Your task to perform on an android device: Search for Mexican restaurants on Maps Image 0: 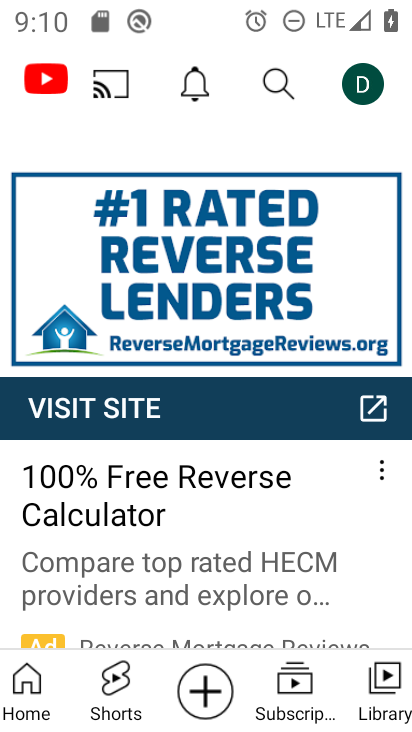
Step 0: press home button
Your task to perform on an android device: Search for Mexican restaurants on Maps Image 1: 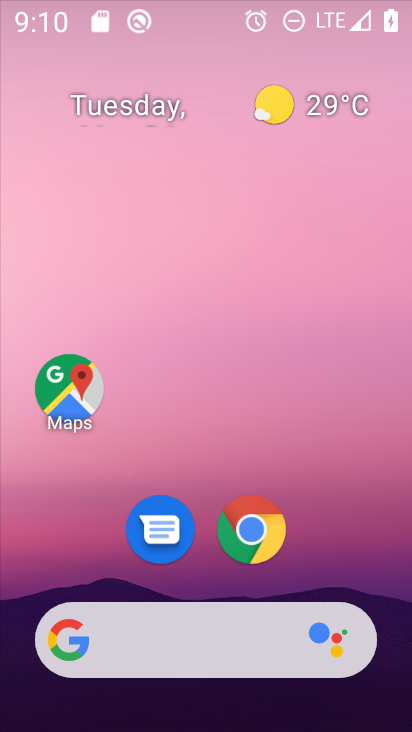
Step 1: drag from (398, 631) to (319, 18)
Your task to perform on an android device: Search for Mexican restaurants on Maps Image 2: 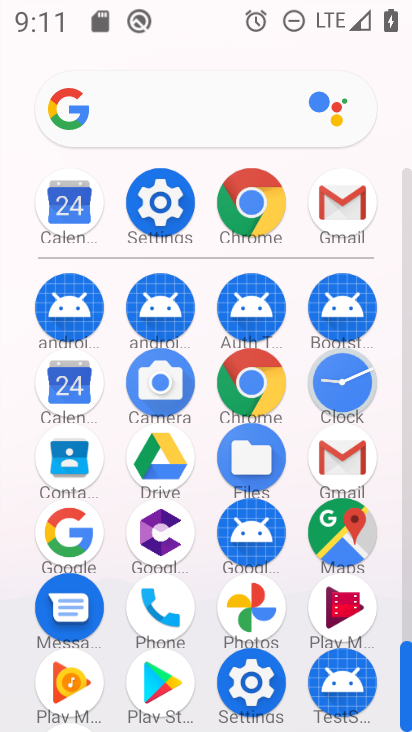
Step 2: click (376, 529)
Your task to perform on an android device: Search for Mexican restaurants on Maps Image 3: 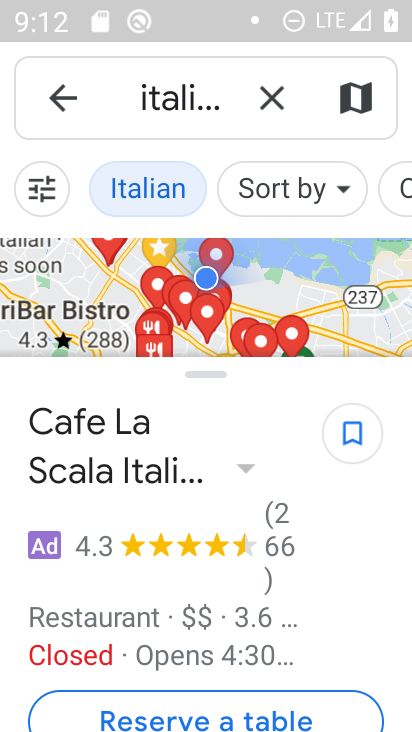
Step 3: click (266, 98)
Your task to perform on an android device: Search for Mexican restaurants on Maps Image 4: 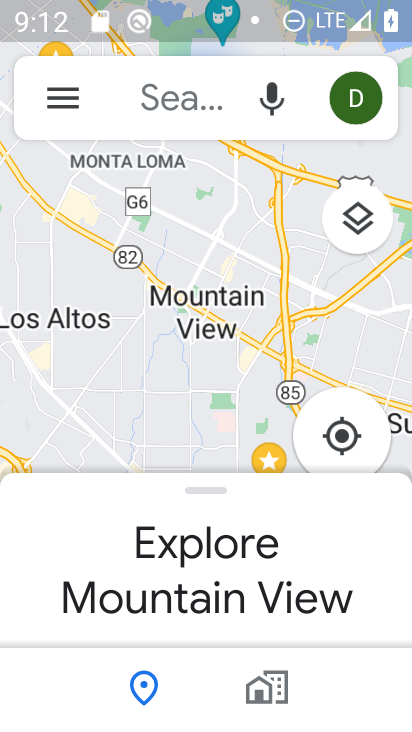
Step 4: click (172, 95)
Your task to perform on an android device: Search for Mexican restaurants on Maps Image 5: 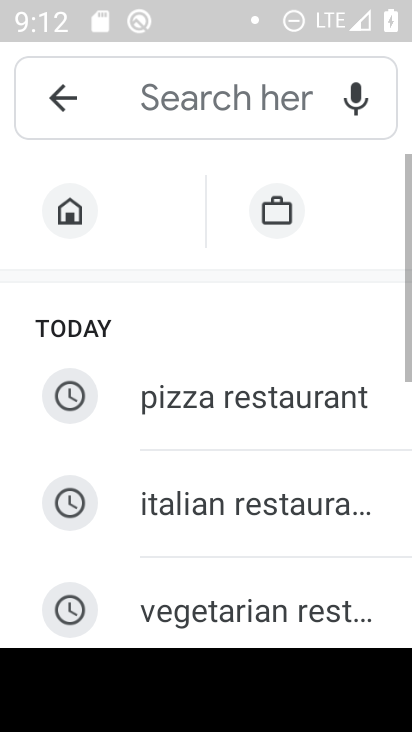
Step 5: drag from (202, 562) to (250, 143)
Your task to perform on an android device: Search for Mexican restaurants on Maps Image 6: 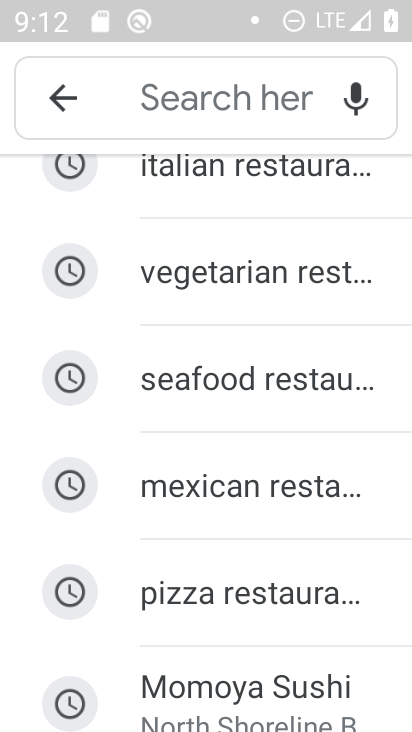
Step 6: click (232, 486)
Your task to perform on an android device: Search for Mexican restaurants on Maps Image 7: 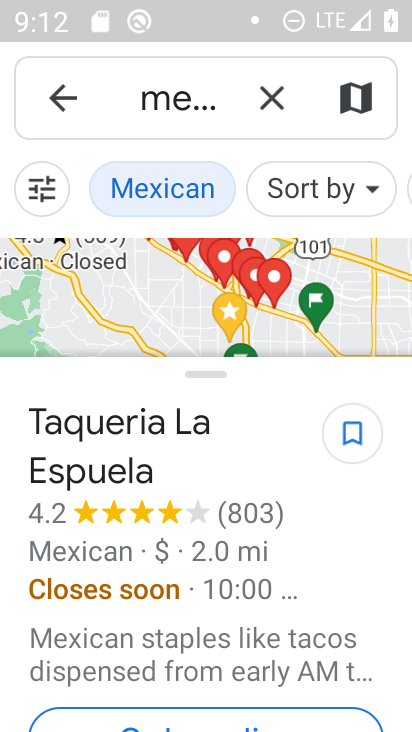
Step 7: task complete